Your task to perform on an android device: show emergency info Image 0: 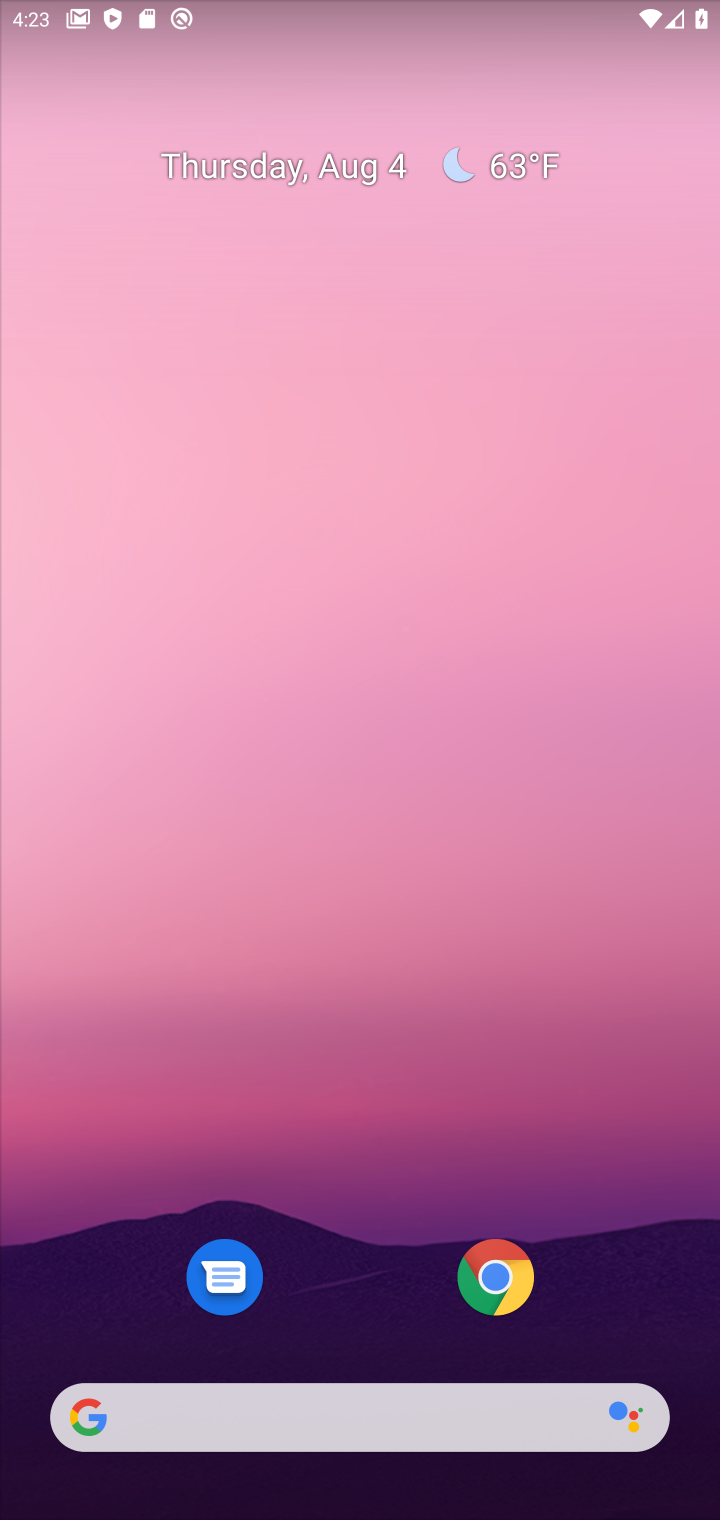
Step 0: drag from (233, 299) to (257, 19)
Your task to perform on an android device: show emergency info Image 1: 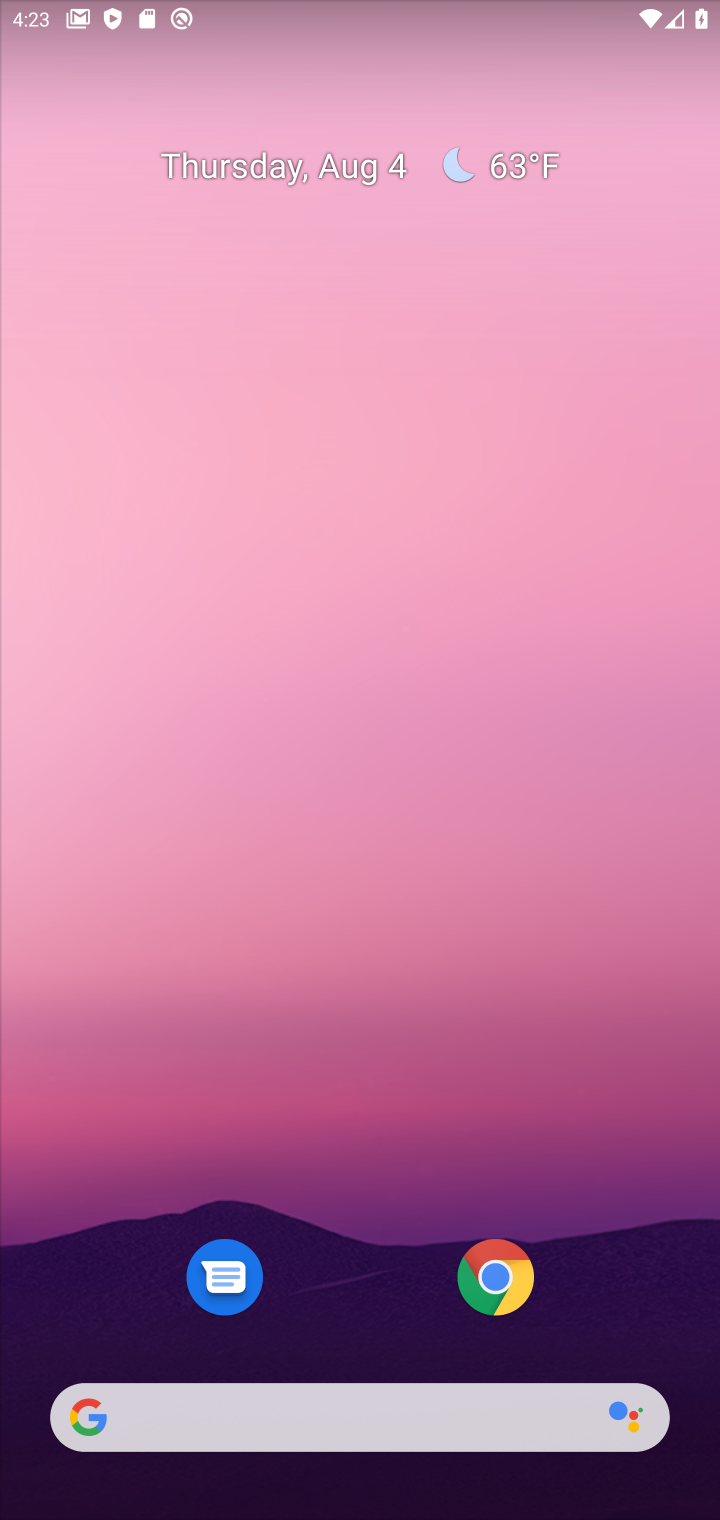
Step 1: drag from (430, 1425) to (263, 123)
Your task to perform on an android device: show emergency info Image 2: 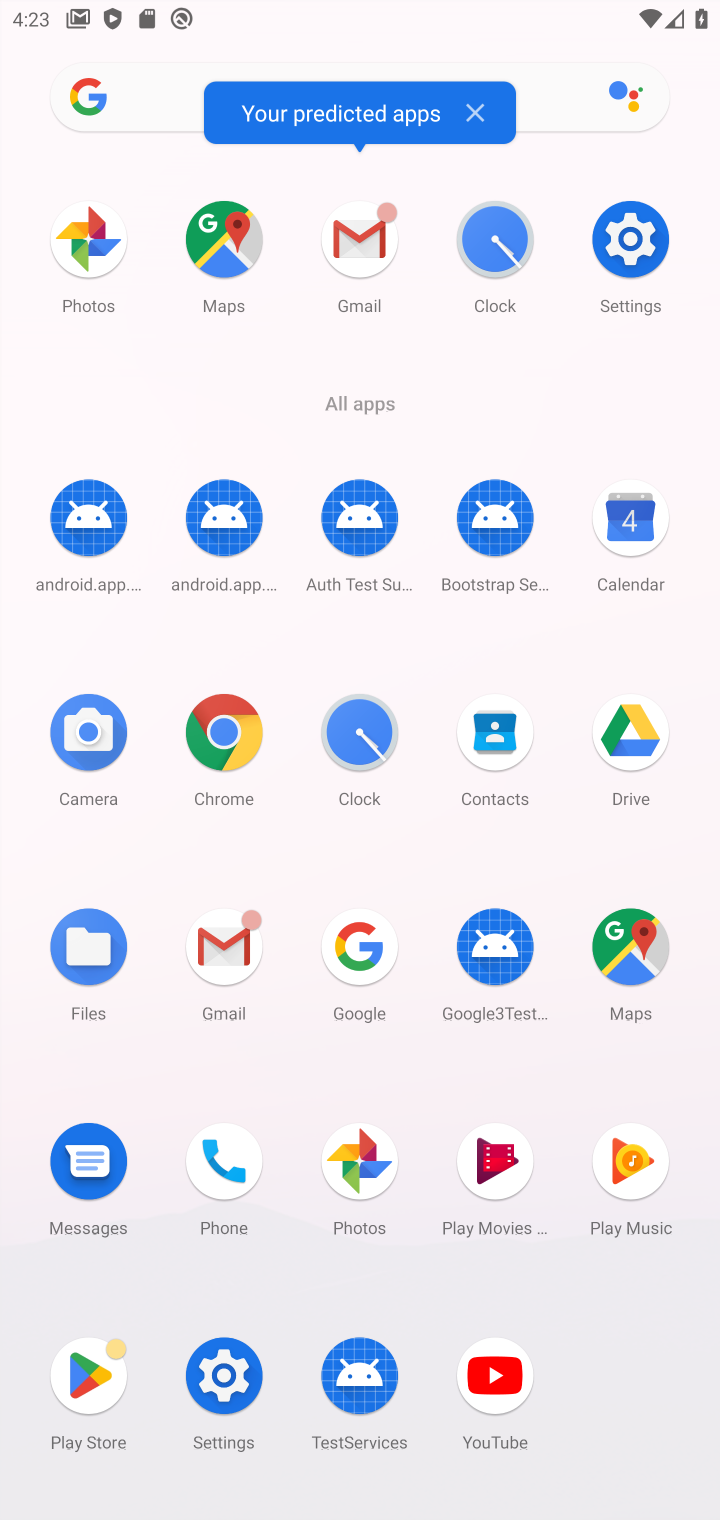
Step 2: click (649, 201)
Your task to perform on an android device: show emergency info Image 3: 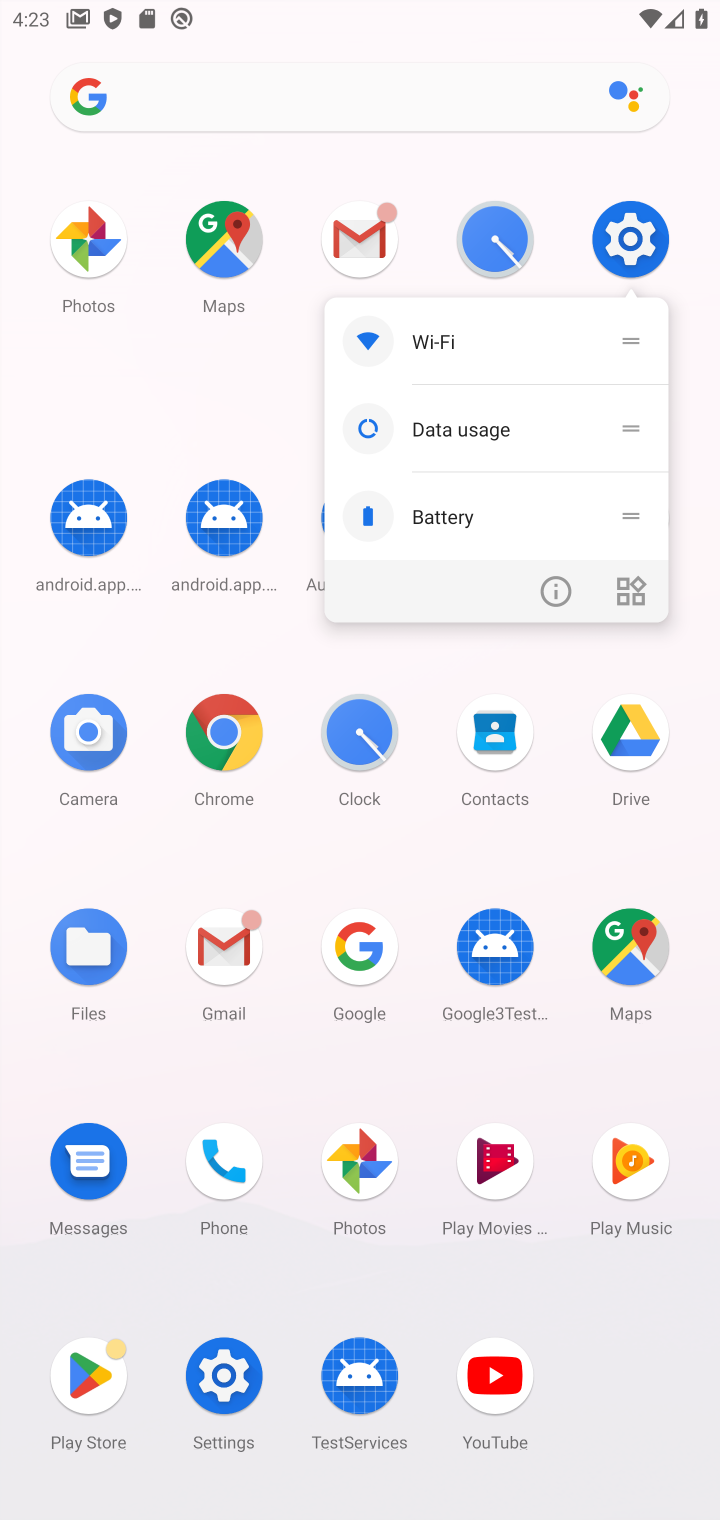
Step 3: click (647, 203)
Your task to perform on an android device: show emergency info Image 4: 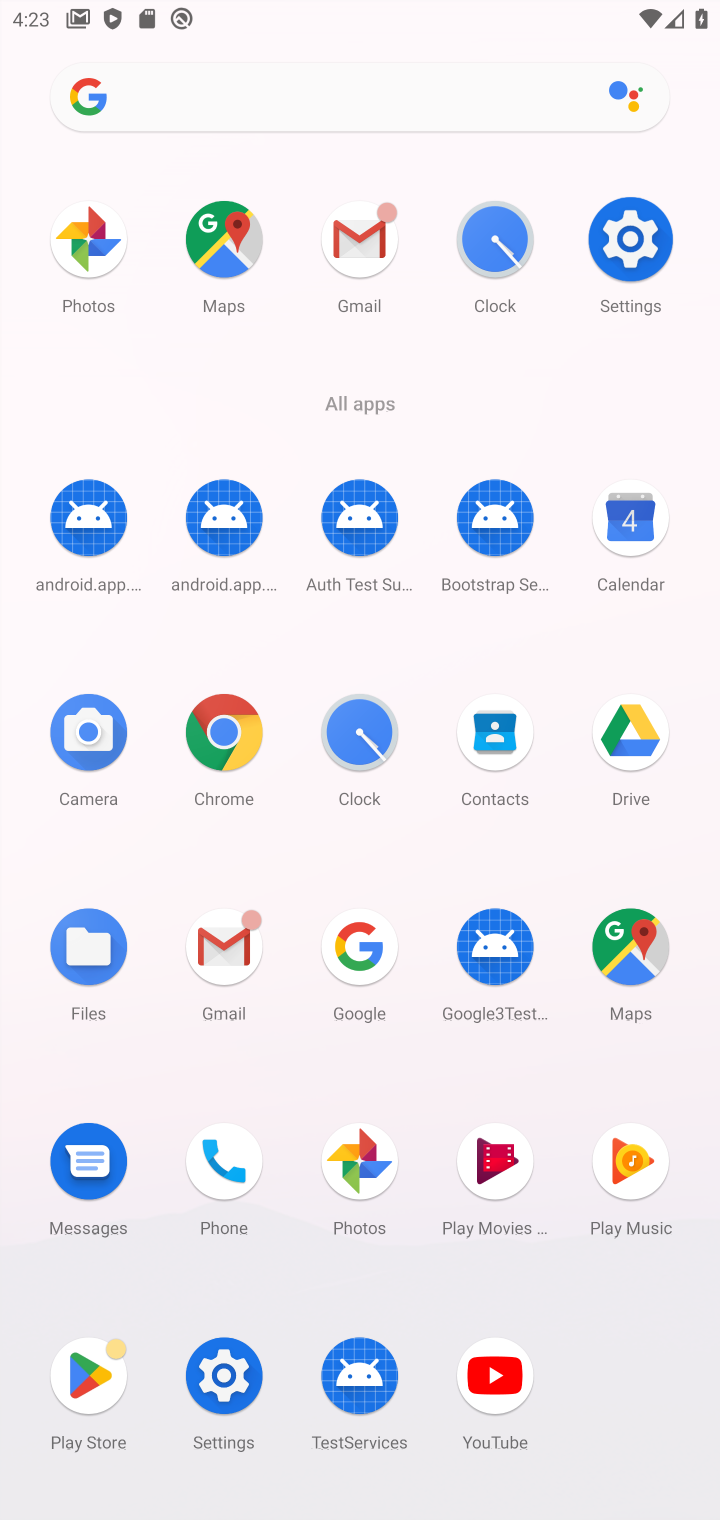
Step 4: click (626, 249)
Your task to perform on an android device: show emergency info Image 5: 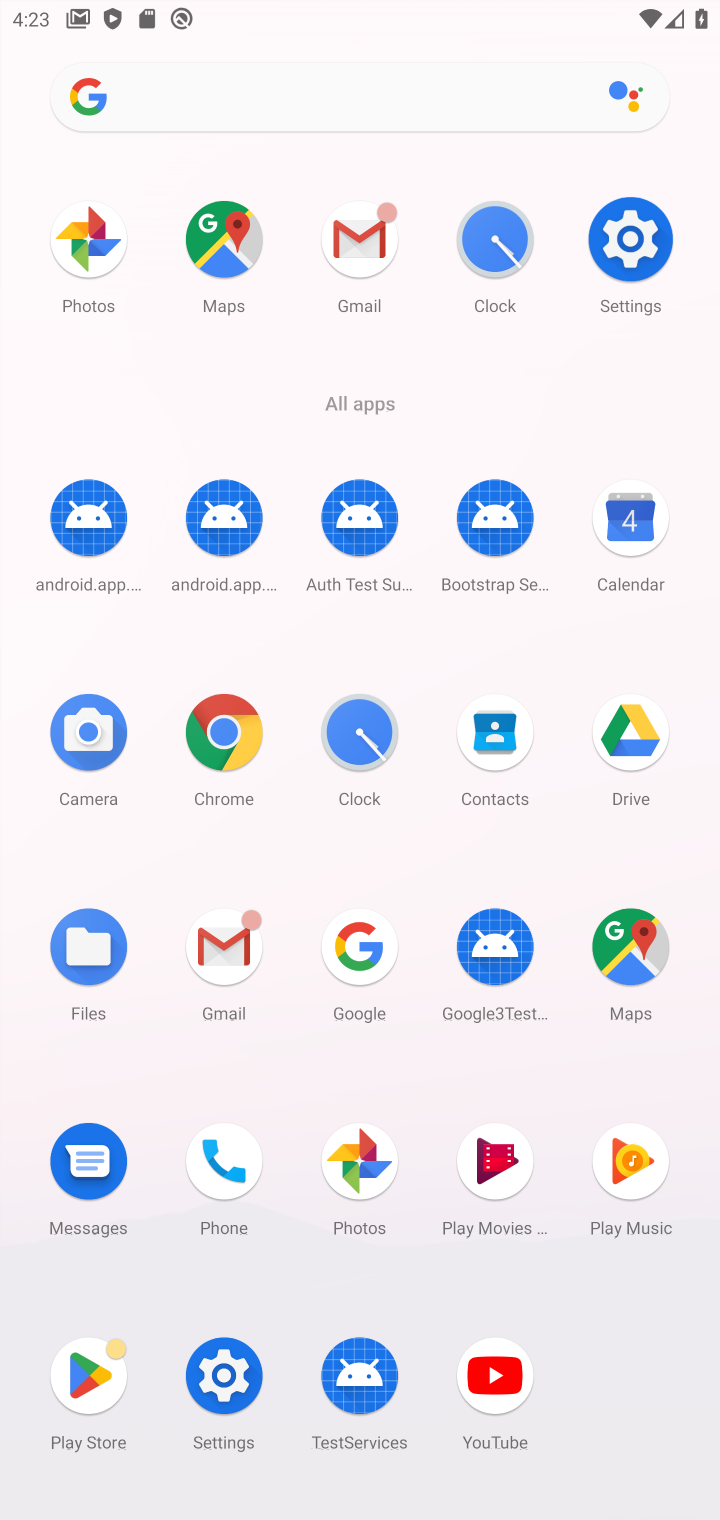
Step 5: click (626, 249)
Your task to perform on an android device: show emergency info Image 6: 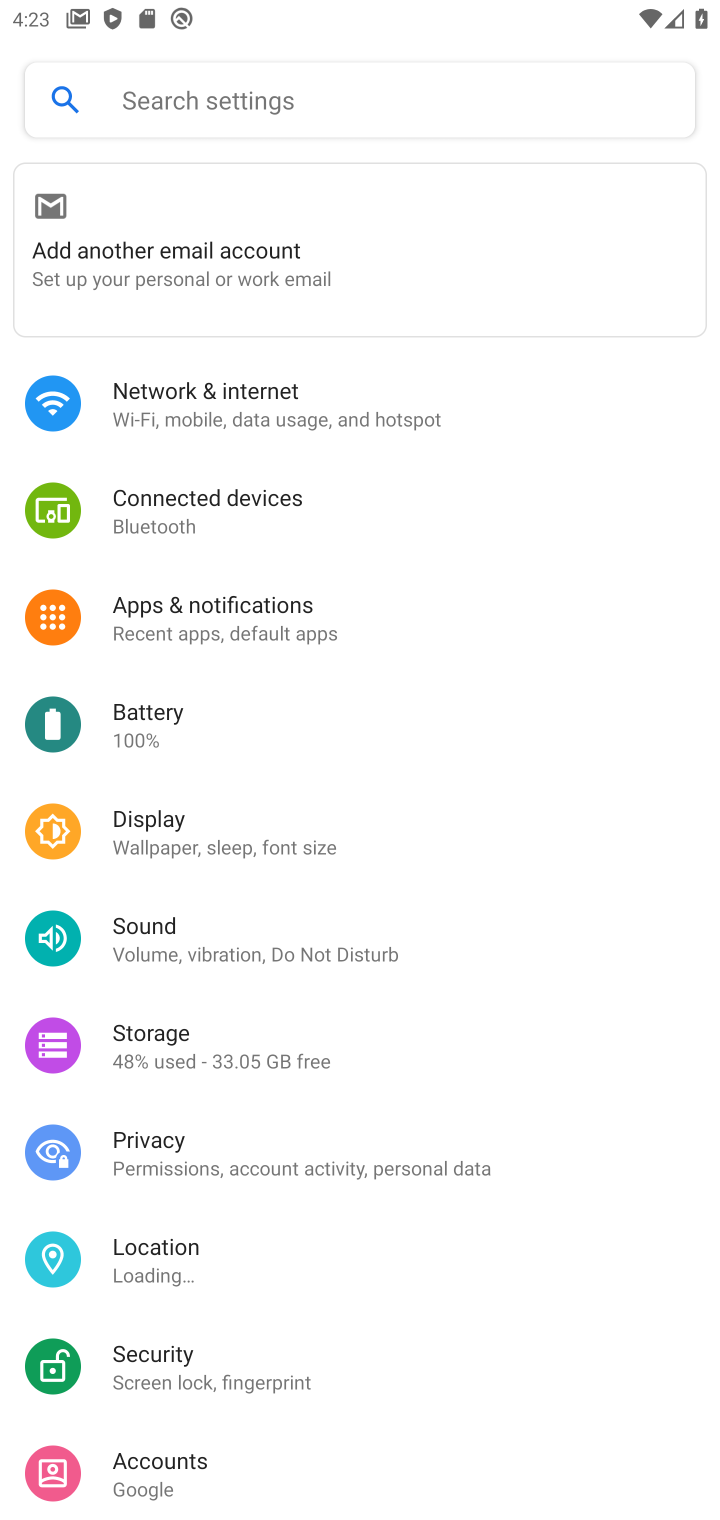
Step 6: drag from (347, 1264) to (291, 370)
Your task to perform on an android device: show emergency info Image 7: 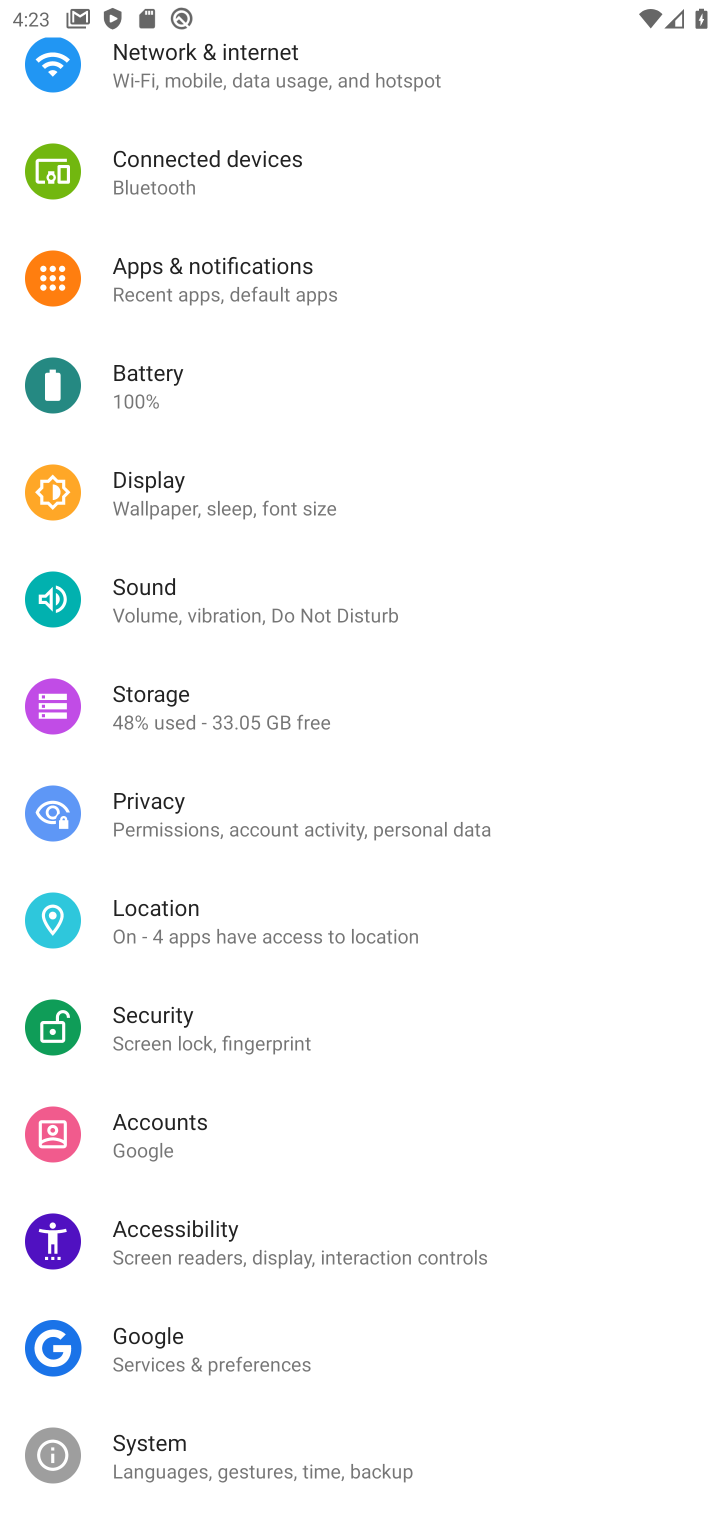
Step 7: drag from (319, 1416) to (313, 612)
Your task to perform on an android device: show emergency info Image 8: 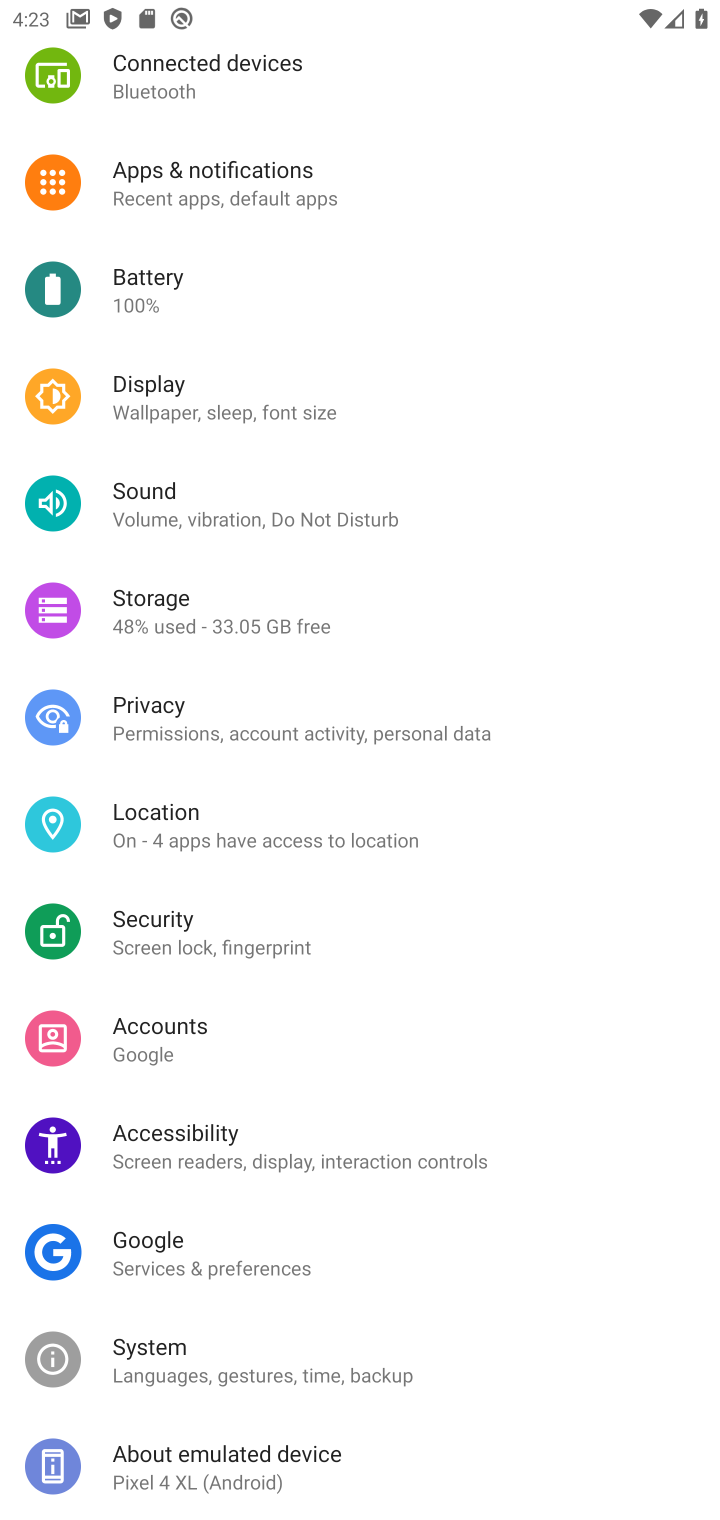
Step 8: click (299, 1484)
Your task to perform on an android device: show emergency info Image 9: 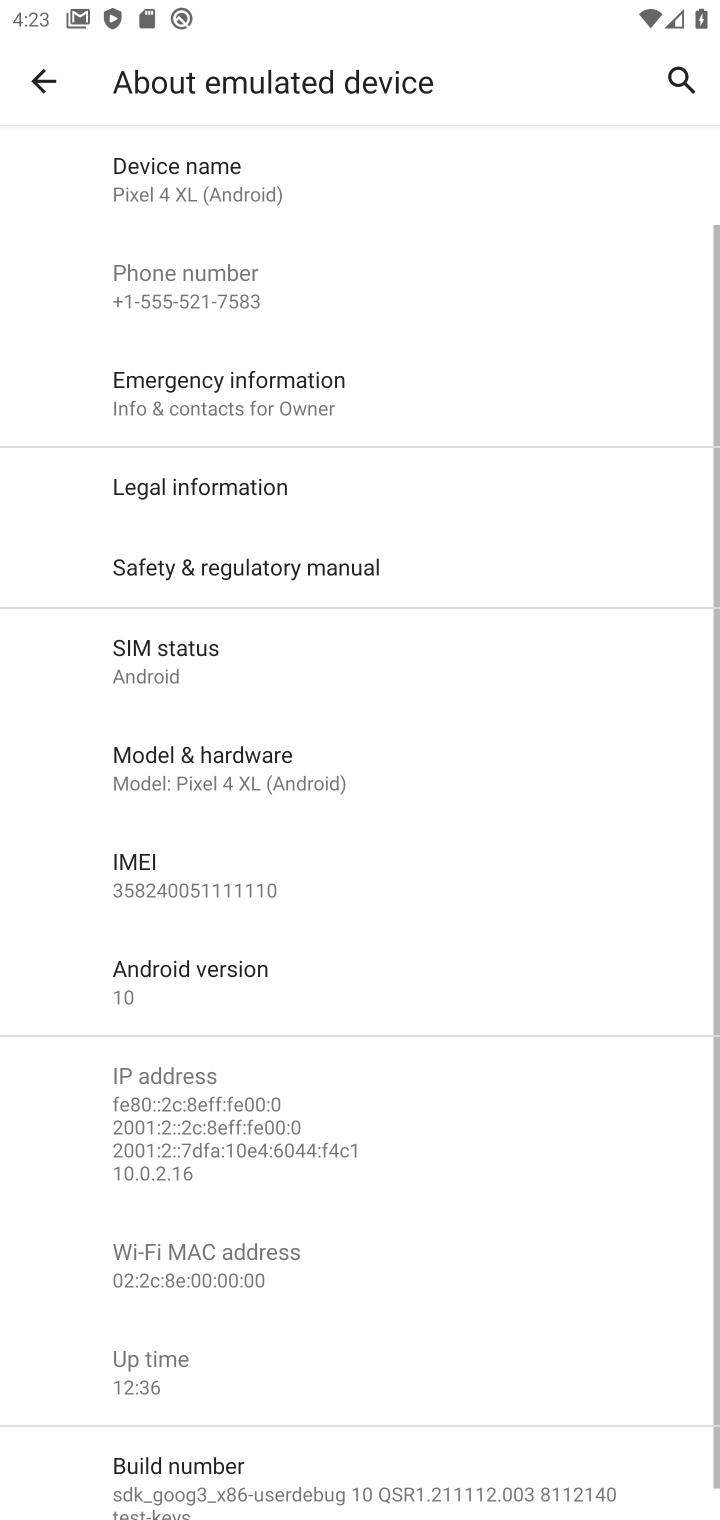
Step 9: click (184, 385)
Your task to perform on an android device: show emergency info Image 10: 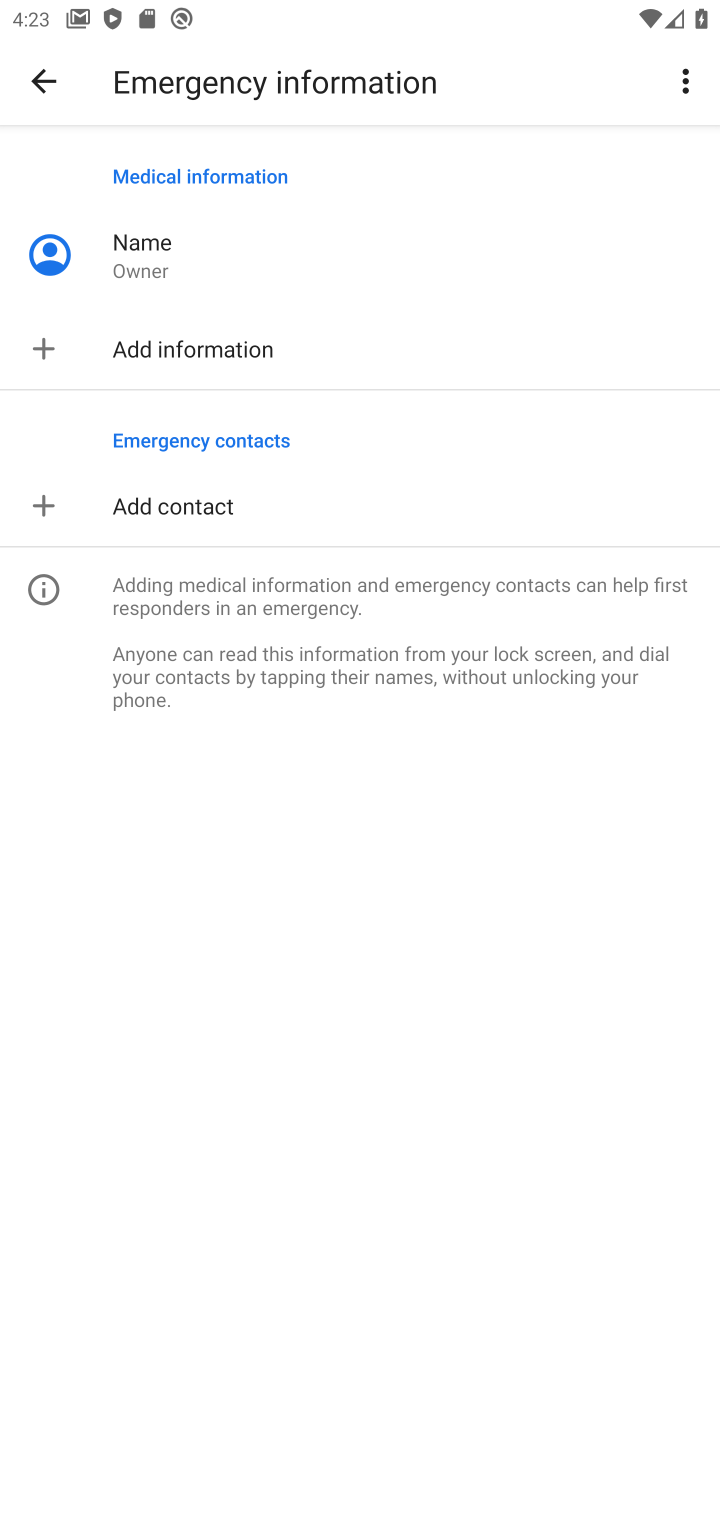
Step 10: task complete